Your task to perform on an android device: Open my contact list Image 0: 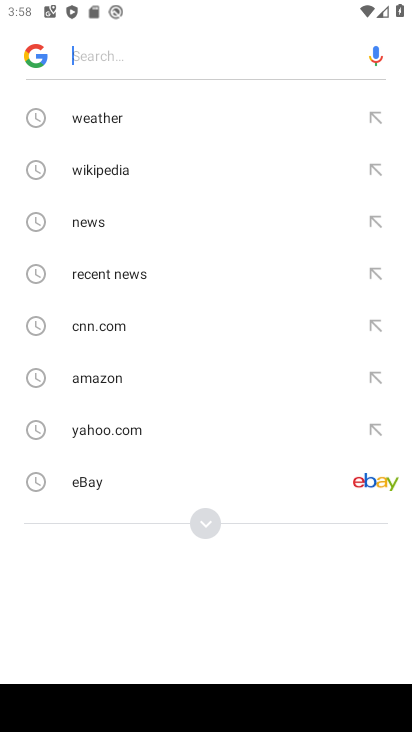
Step 0: press home button
Your task to perform on an android device: Open my contact list Image 1: 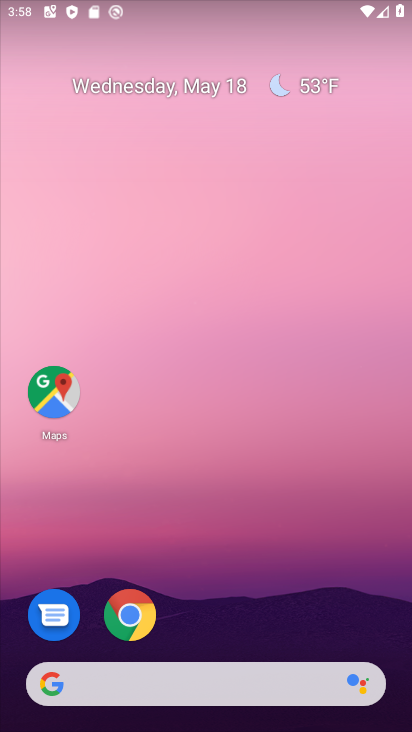
Step 1: drag from (265, 605) to (255, 208)
Your task to perform on an android device: Open my contact list Image 2: 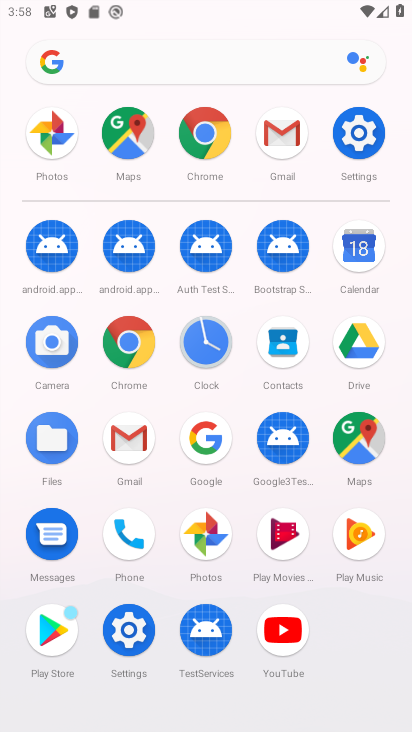
Step 2: click (283, 351)
Your task to perform on an android device: Open my contact list Image 3: 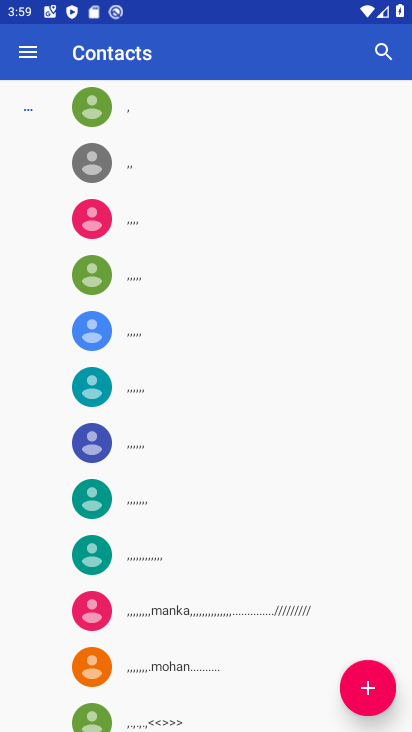
Step 3: task complete